Your task to perform on an android device: toggle javascript in the chrome app Image 0: 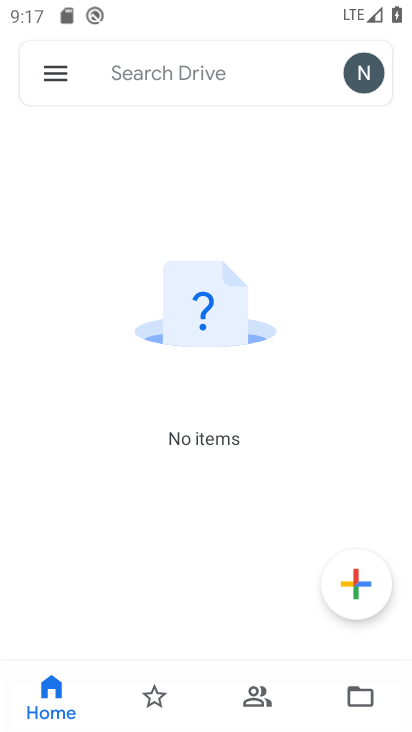
Step 0: press home button
Your task to perform on an android device: toggle javascript in the chrome app Image 1: 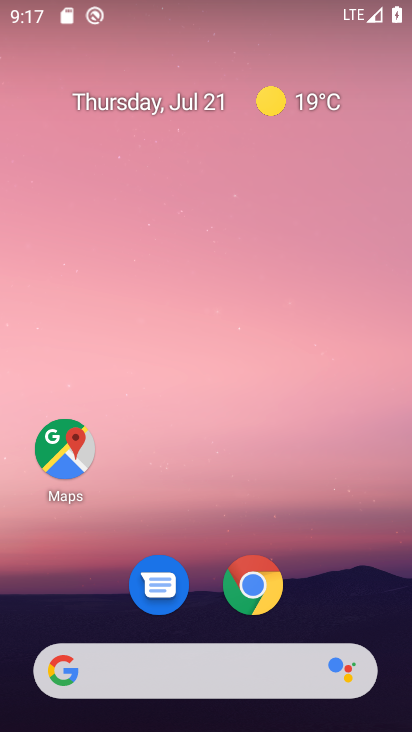
Step 1: click (257, 582)
Your task to perform on an android device: toggle javascript in the chrome app Image 2: 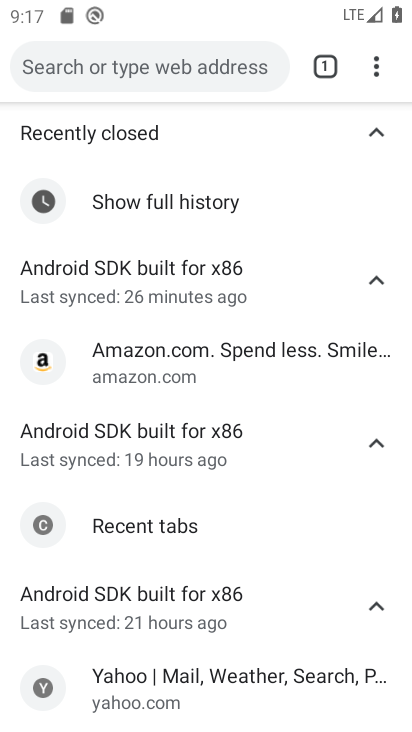
Step 2: click (374, 62)
Your task to perform on an android device: toggle javascript in the chrome app Image 3: 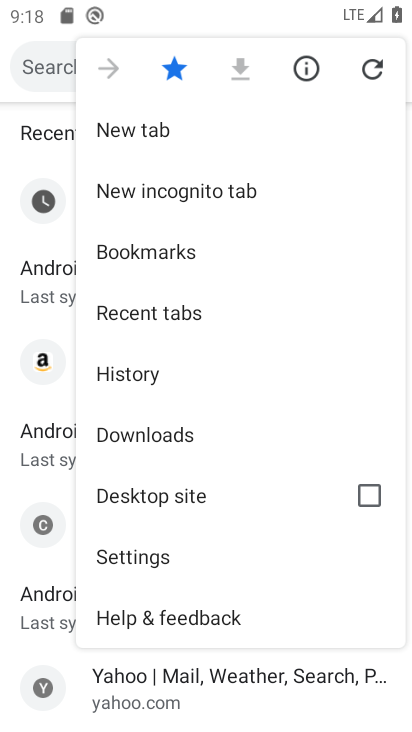
Step 3: click (151, 549)
Your task to perform on an android device: toggle javascript in the chrome app Image 4: 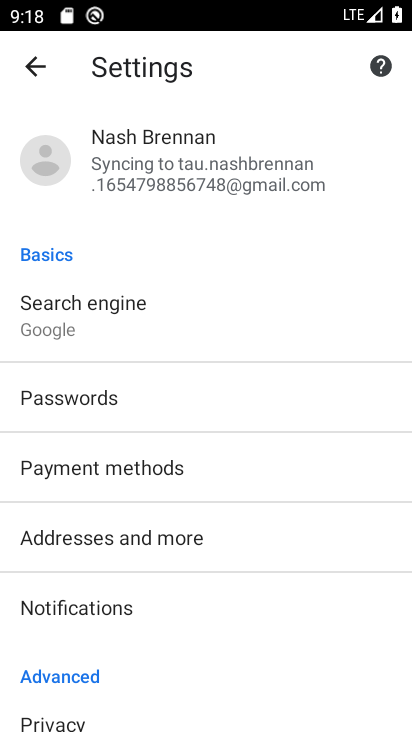
Step 4: drag from (262, 644) to (262, 186)
Your task to perform on an android device: toggle javascript in the chrome app Image 5: 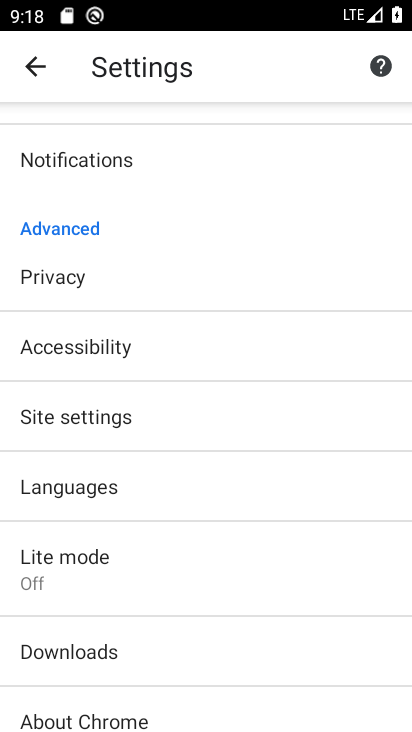
Step 5: click (121, 419)
Your task to perform on an android device: toggle javascript in the chrome app Image 6: 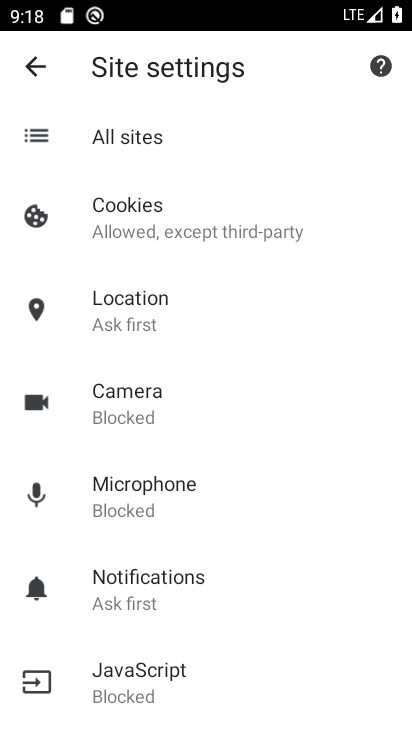
Step 6: drag from (244, 621) to (254, 443)
Your task to perform on an android device: toggle javascript in the chrome app Image 7: 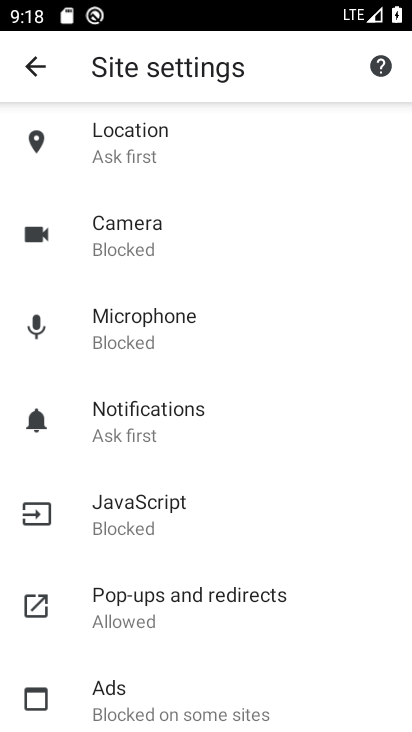
Step 7: click (166, 521)
Your task to perform on an android device: toggle javascript in the chrome app Image 8: 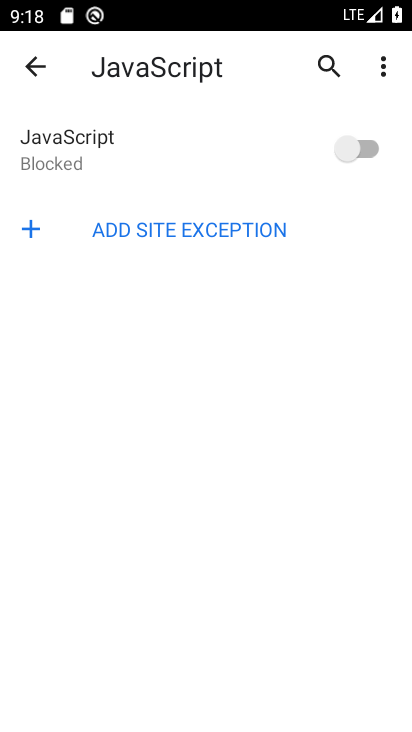
Step 8: click (358, 131)
Your task to perform on an android device: toggle javascript in the chrome app Image 9: 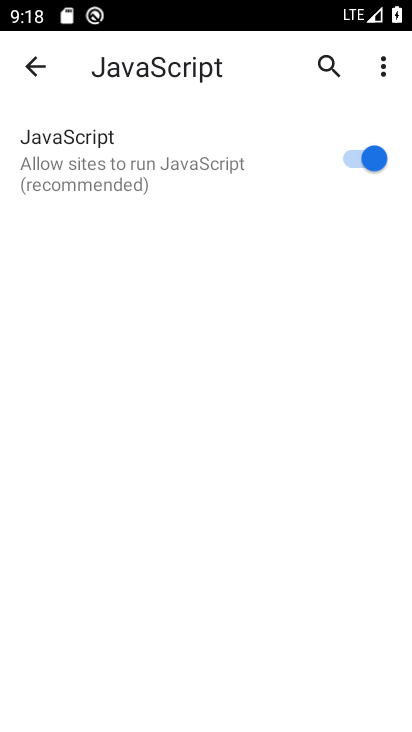
Step 9: task complete